Your task to perform on an android device: Search for sushi restaurants on Maps Image 0: 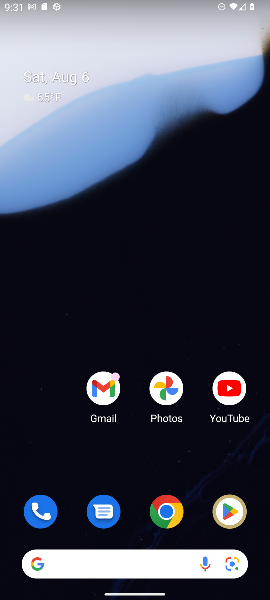
Step 0: press home button
Your task to perform on an android device: Search for sushi restaurants on Maps Image 1: 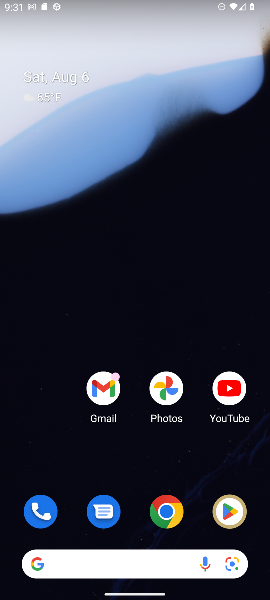
Step 1: press home button
Your task to perform on an android device: Search for sushi restaurants on Maps Image 2: 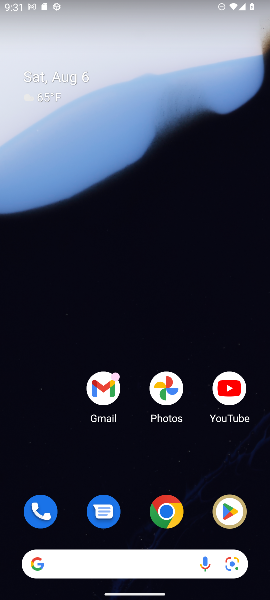
Step 2: drag from (82, 449) to (76, 123)
Your task to perform on an android device: Search for sushi restaurants on Maps Image 3: 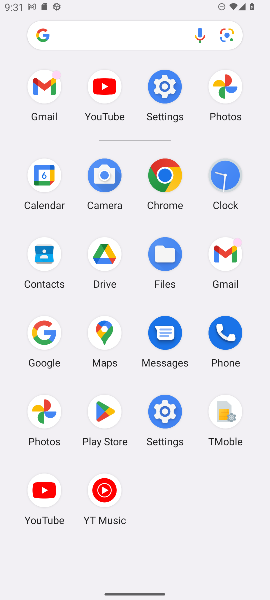
Step 3: click (107, 344)
Your task to perform on an android device: Search for sushi restaurants on Maps Image 4: 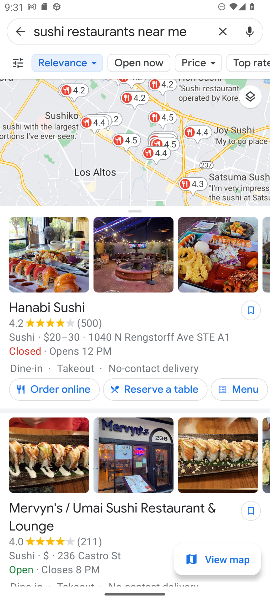
Step 4: task complete